Your task to perform on an android device: Turn off the flashlight Image 0: 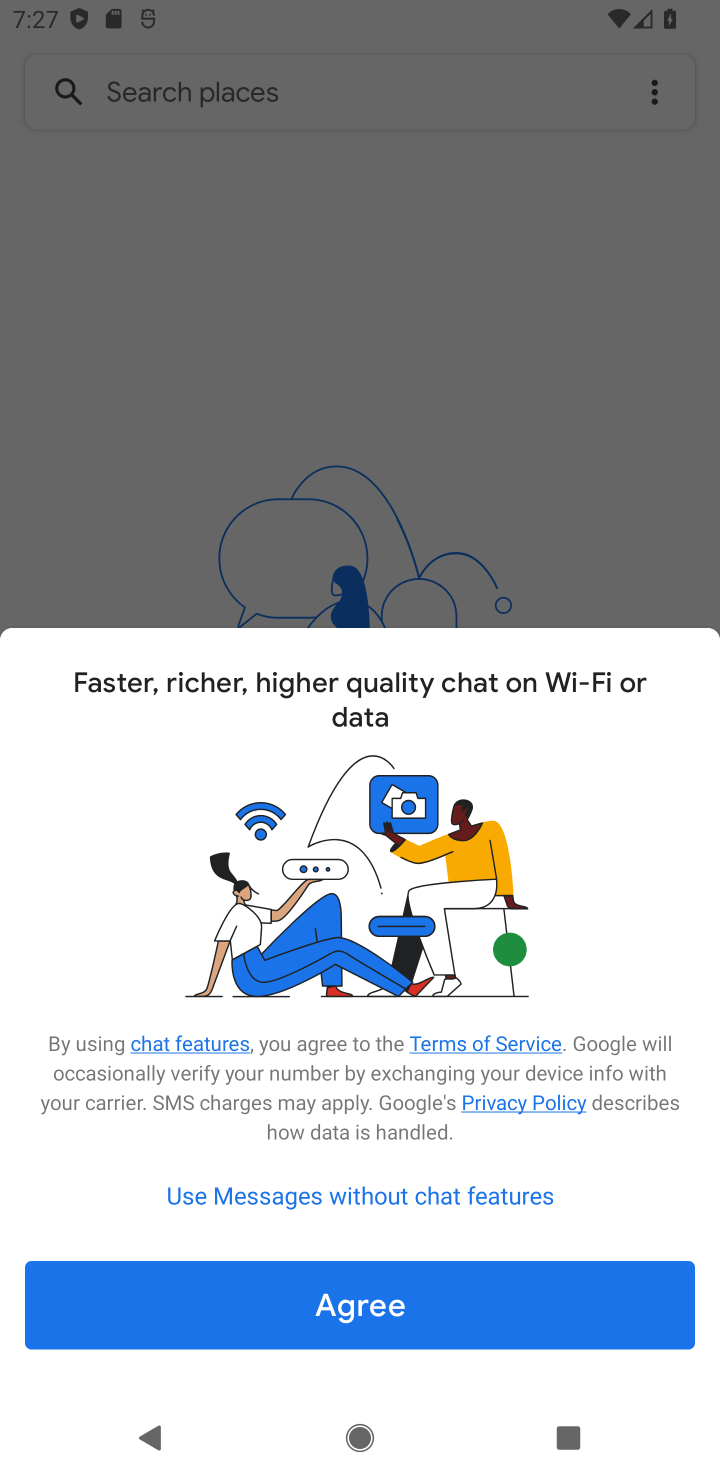
Step 0: press home button
Your task to perform on an android device: Turn off the flashlight Image 1: 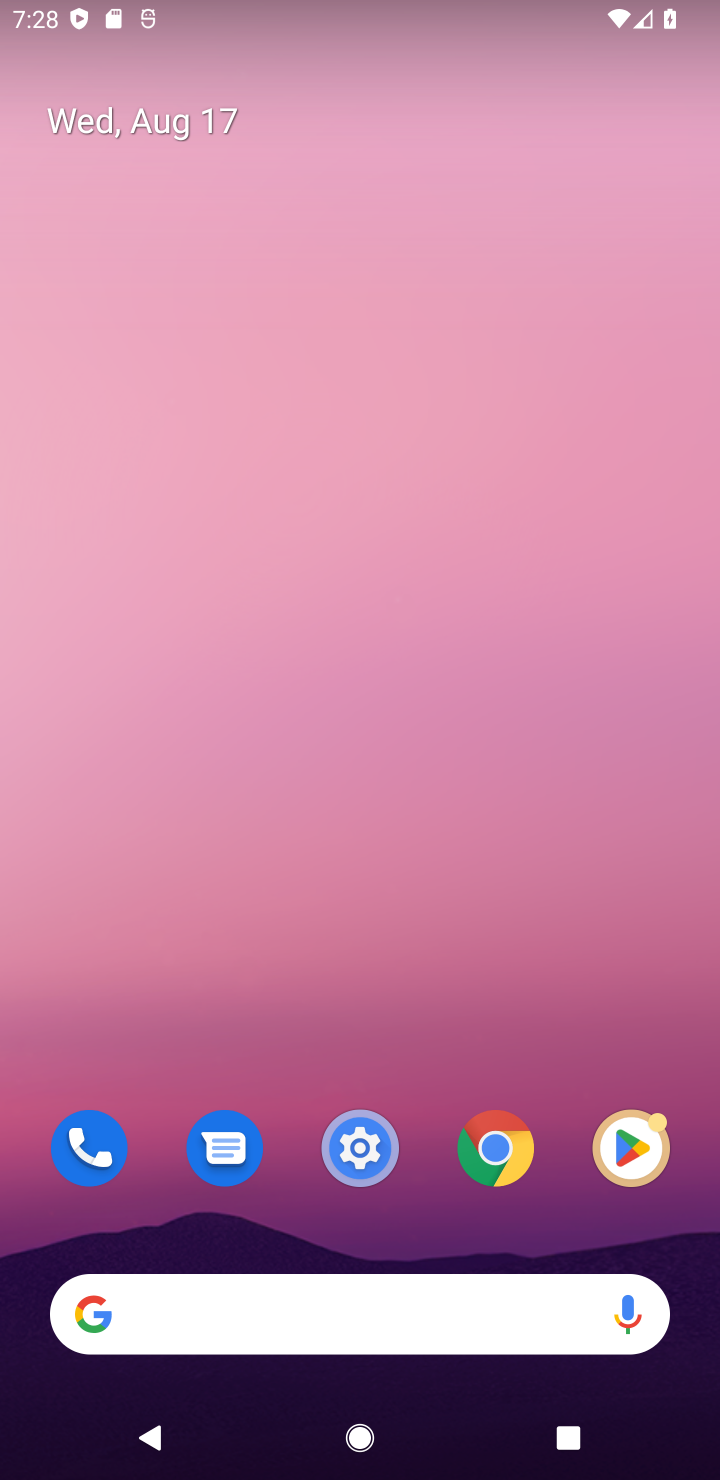
Step 1: drag from (438, 230) to (392, 810)
Your task to perform on an android device: Turn off the flashlight Image 2: 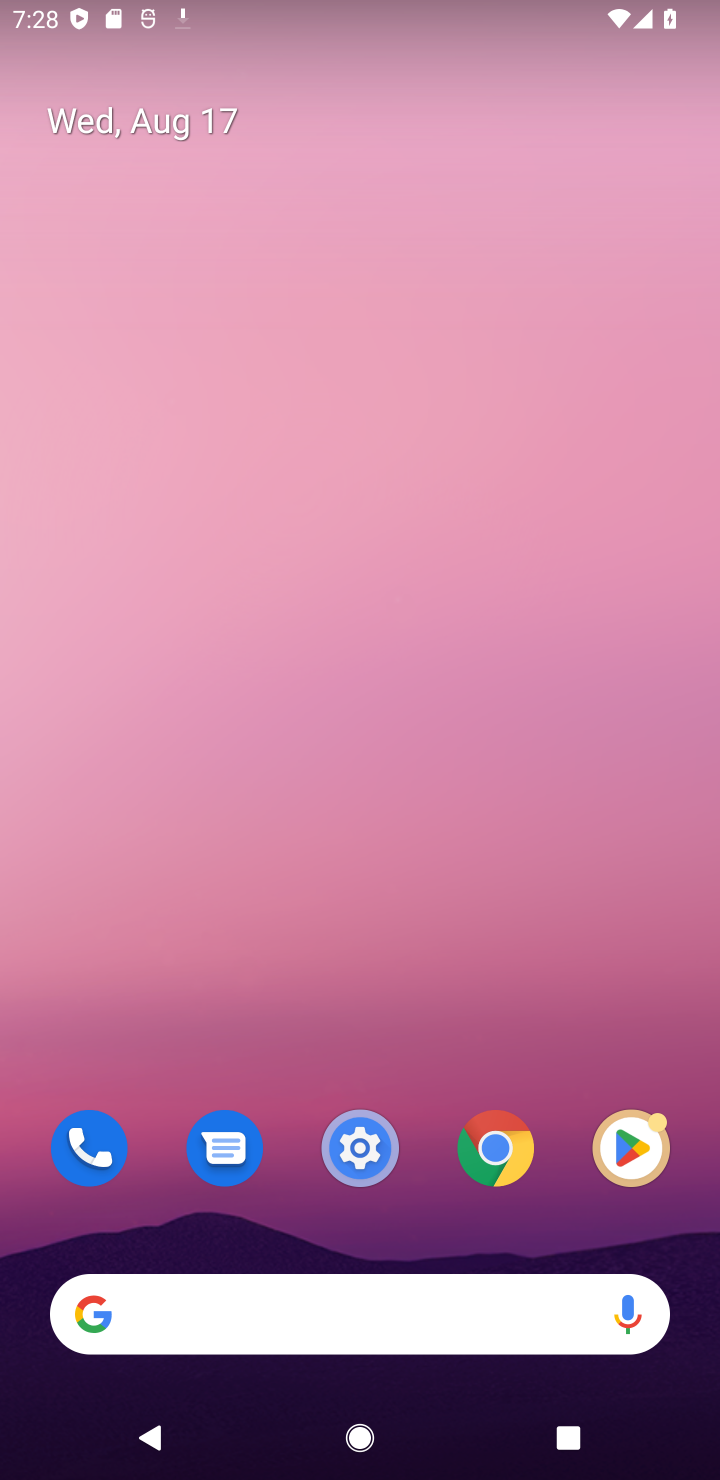
Step 2: drag from (385, 361) to (369, 912)
Your task to perform on an android device: Turn off the flashlight Image 3: 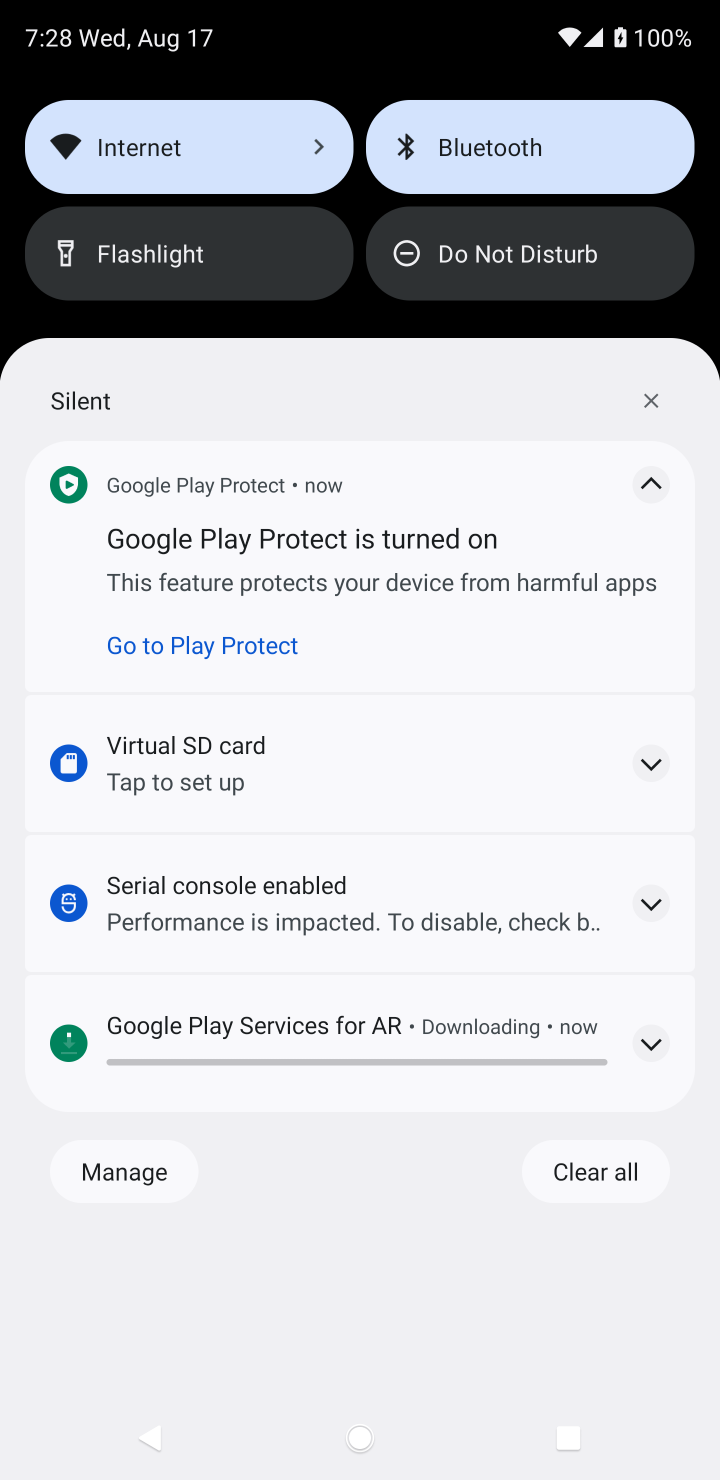
Step 3: drag from (364, 319) to (373, 1144)
Your task to perform on an android device: Turn off the flashlight Image 4: 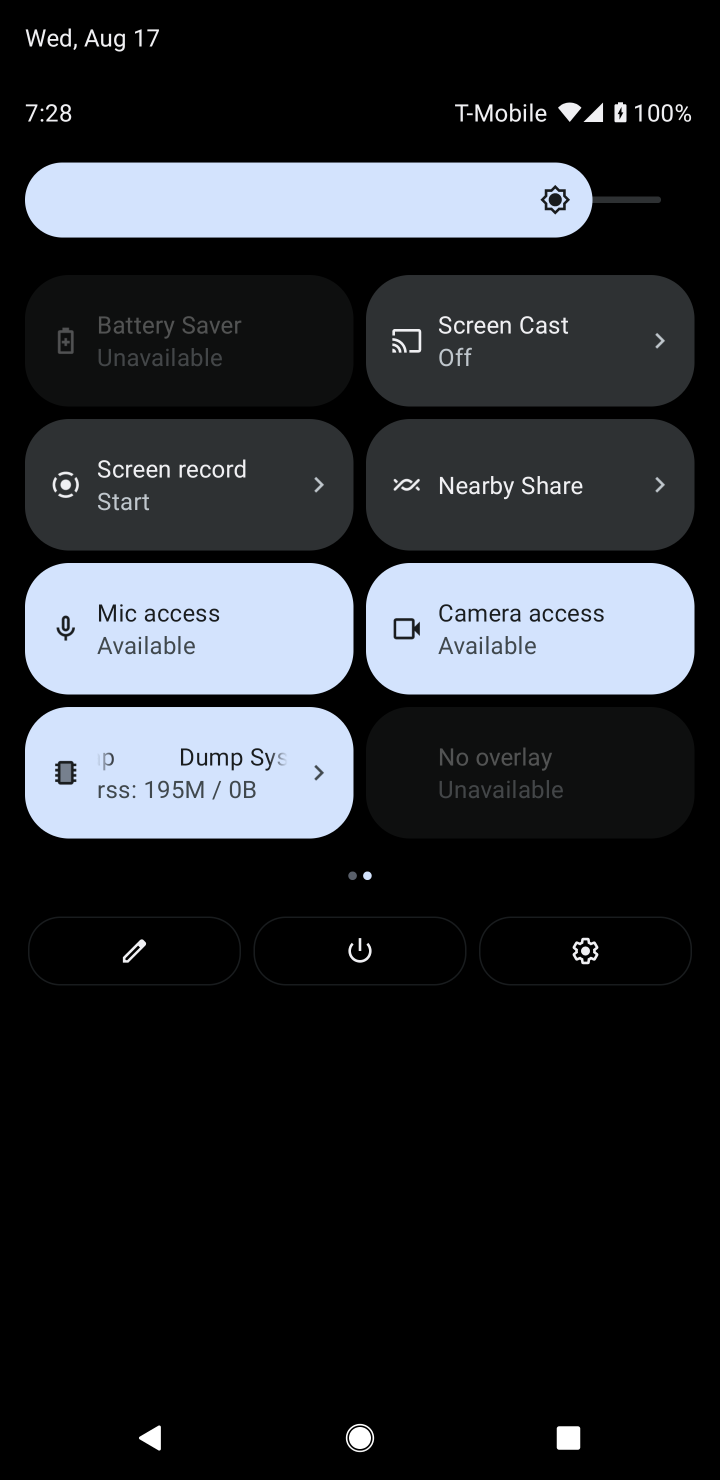
Step 4: drag from (266, 1013) to (330, 429)
Your task to perform on an android device: Turn off the flashlight Image 5: 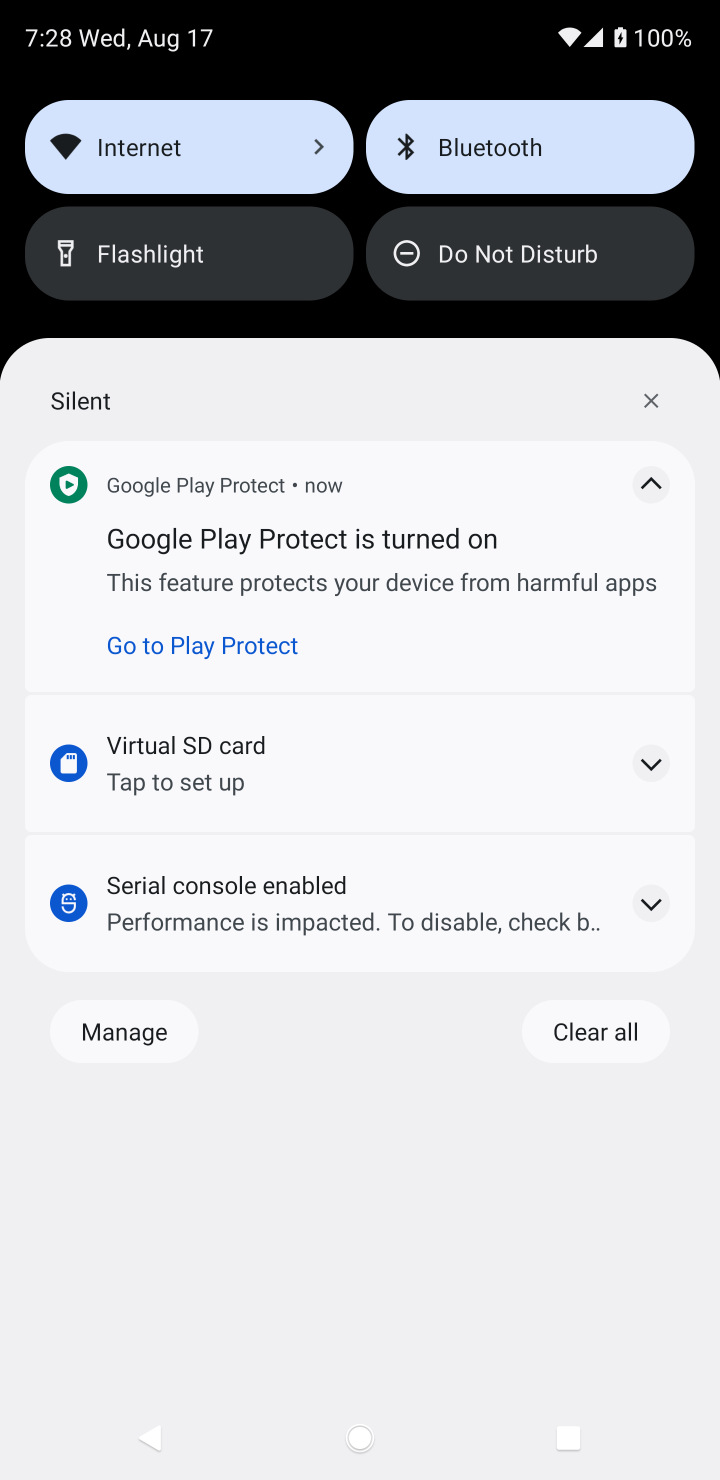
Step 5: click (177, 264)
Your task to perform on an android device: Turn off the flashlight Image 6: 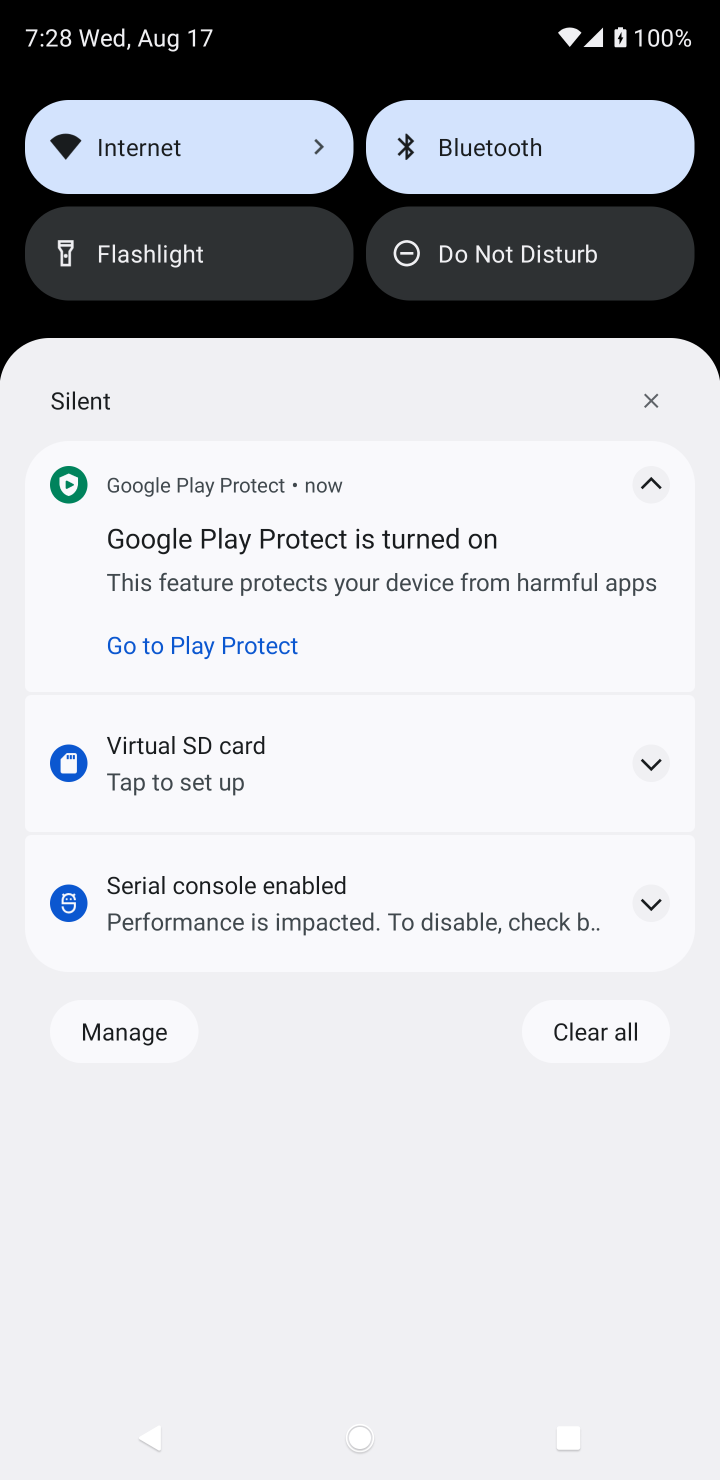
Step 6: task complete